Your task to perform on an android device: turn smart compose on in the gmail app Image 0: 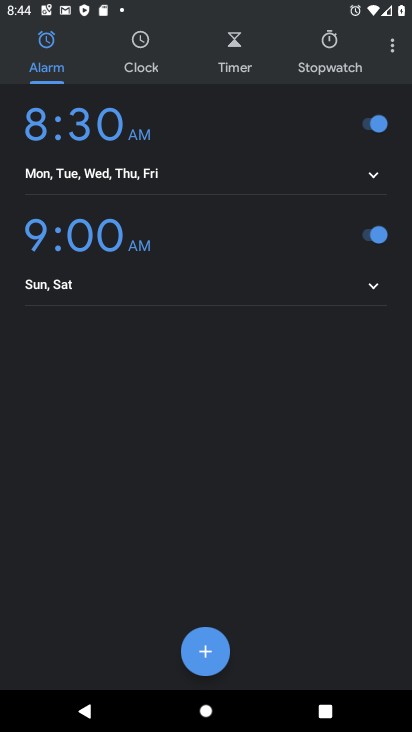
Step 0: press home button
Your task to perform on an android device: turn smart compose on in the gmail app Image 1: 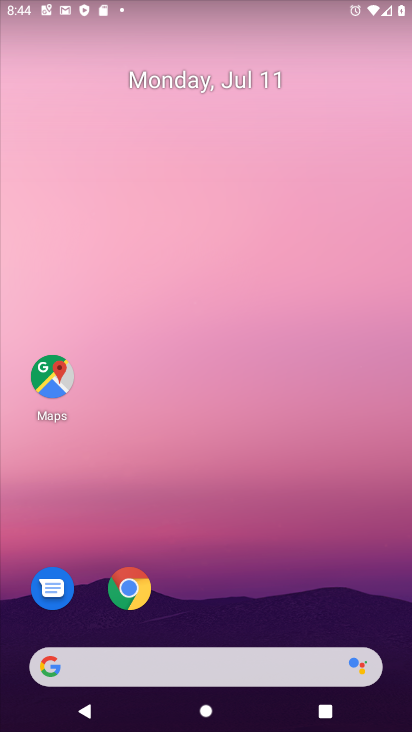
Step 1: drag from (161, 669) to (318, 152)
Your task to perform on an android device: turn smart compose on in the gmail app Image 2: 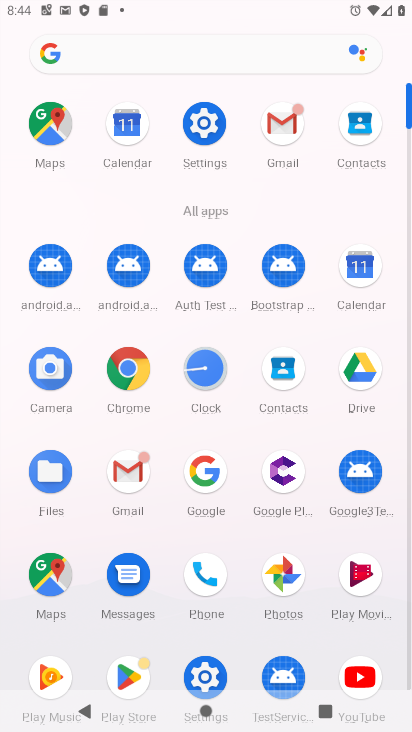
Step 2: click (275, 130)
Your task to perform on an android device: turn smart compose on in the gmail app Image 3: 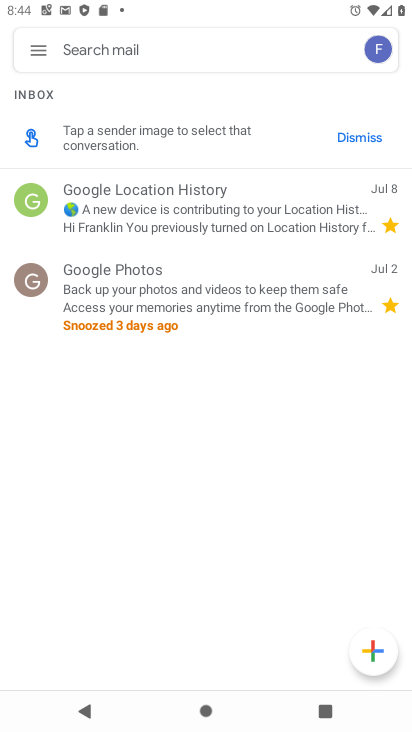
Step 3: click (41, 48)
Your task to perform on an android device: turn smart compose on in the gmail app Image 4: 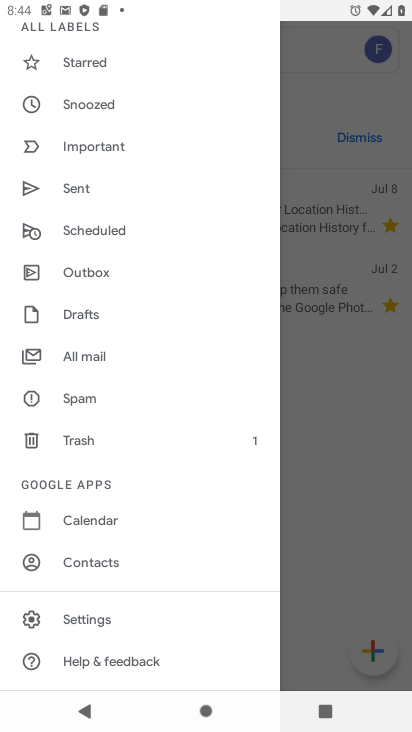
Step 4: click (97, 620)
Your task to perform on an android device: turn smart compose on in the gmail app Image 5: 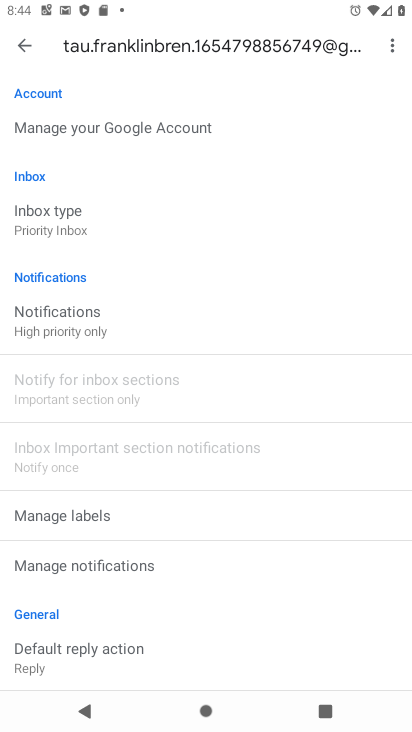
Step 5: task complete